Your task to perform on an android device: turn off airplane mode Image 0: 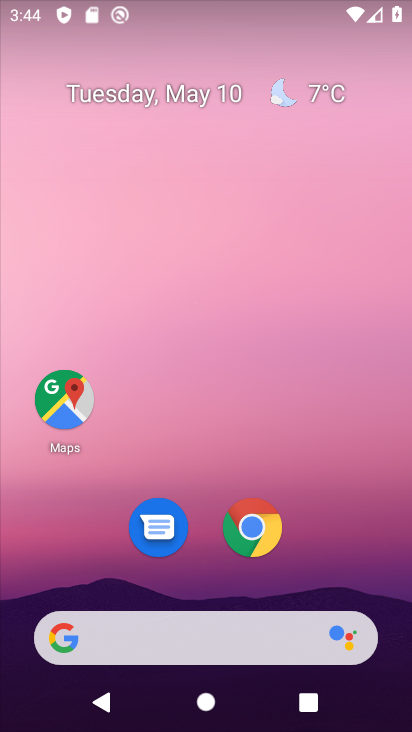
Step 0: drag from (326, 560) to (257, 56)
Your task to perform on an android device: turn off airplane mode Image 1: 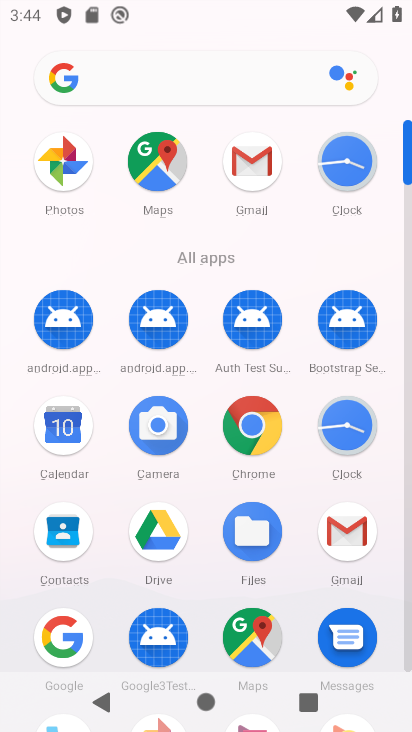
Step 1: drag from (196, 507) to (183, 126)
Your task to perform on an android device: turn off airplane mode Image 2: 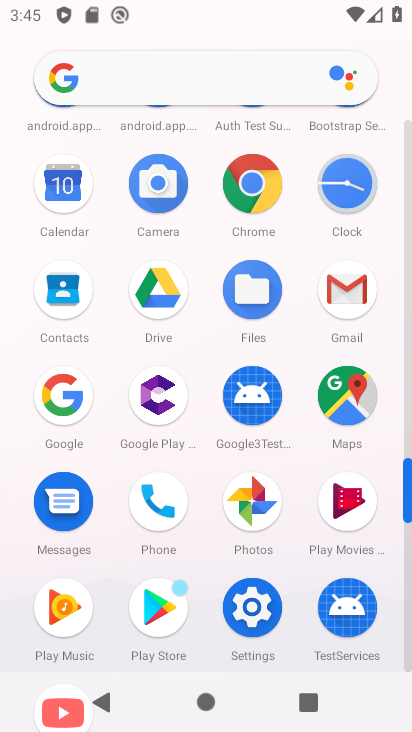
Step 2: click (258, 609)
Your task to perform on an android device: turn off airplane mode Image 3: 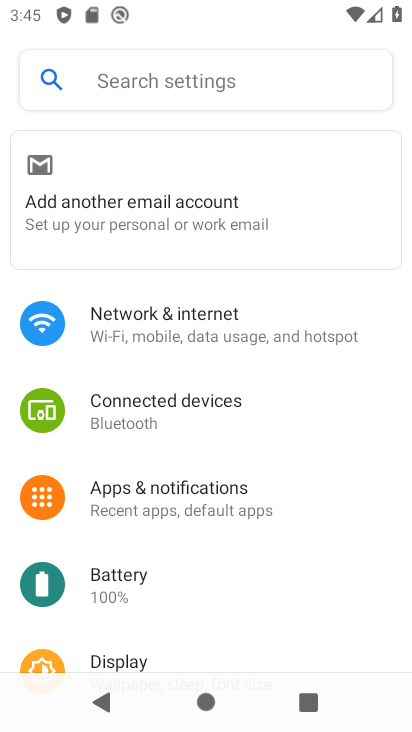
Step 3: click (157, 314)
Your task to perform on an android device: turn off airplane mode Image 4: 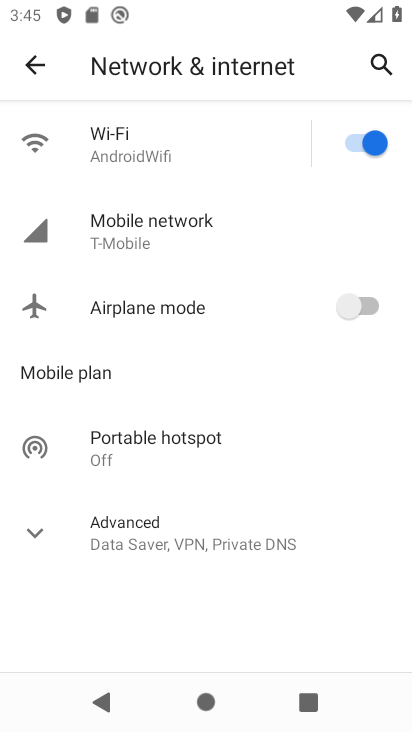
Step 4: task complete